Your task to perform on an android device: turn off data saver in the chrome app Image 0: 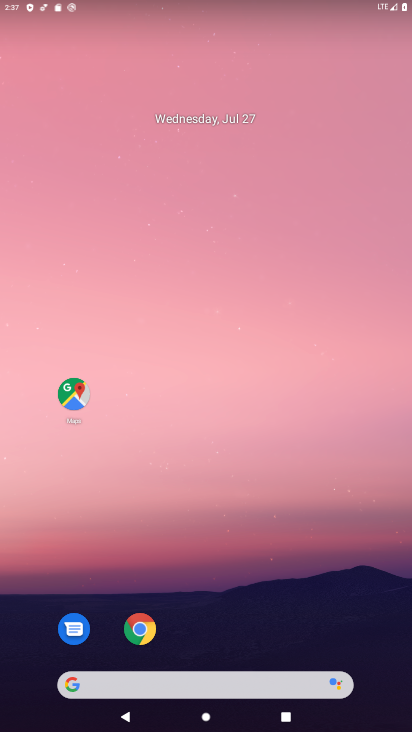
Step 0: click (149, 635)
Your task to perform on an android device: turn off data saver in the chrome app Image 1: 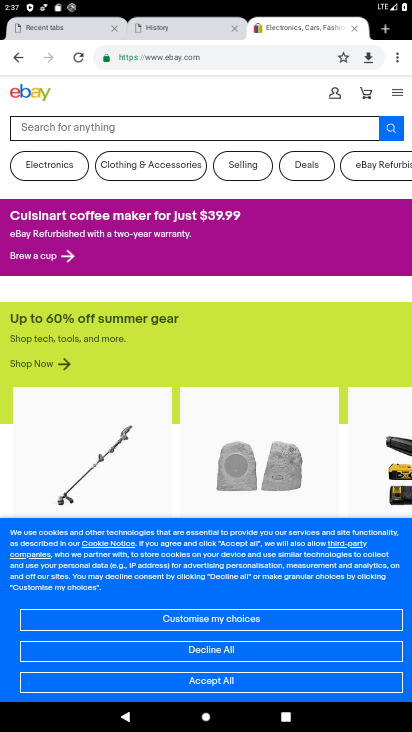
Step 1: click (401, 58)
Your task to perform on an android device: turn off data saver in the chrome app Image 2: 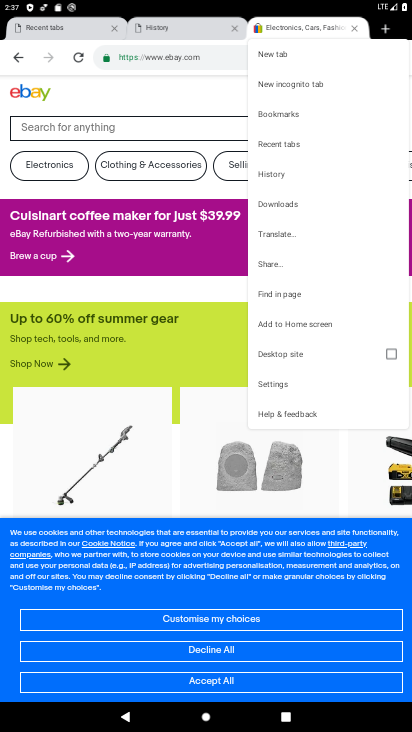
Step 2: click (275, 380)
Your task to perform on an android device: turn off data saver in the chrome app Image 3: 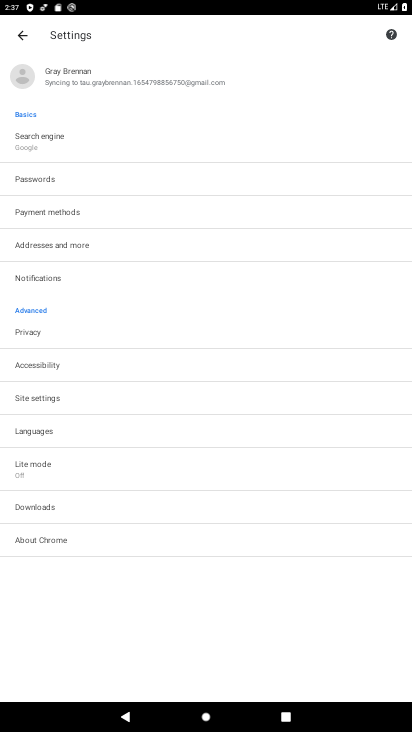
Step 3: click (68, 474)
Your task to perform on an android device: turn off data saver in the chrome app Image 4: 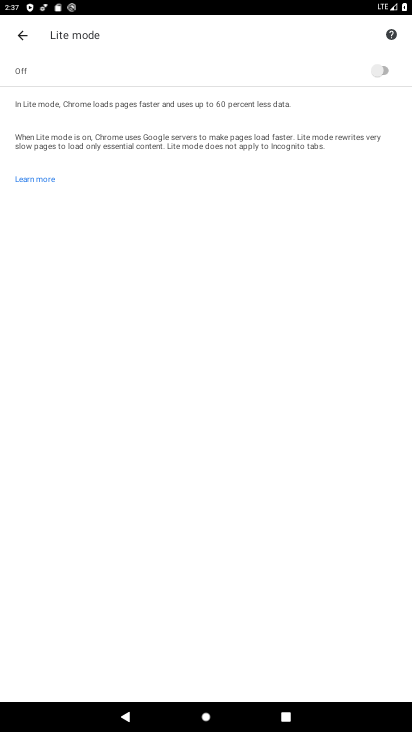
Step 4: task complete